Your task to perform on an android device: Open notification settings Image 0: 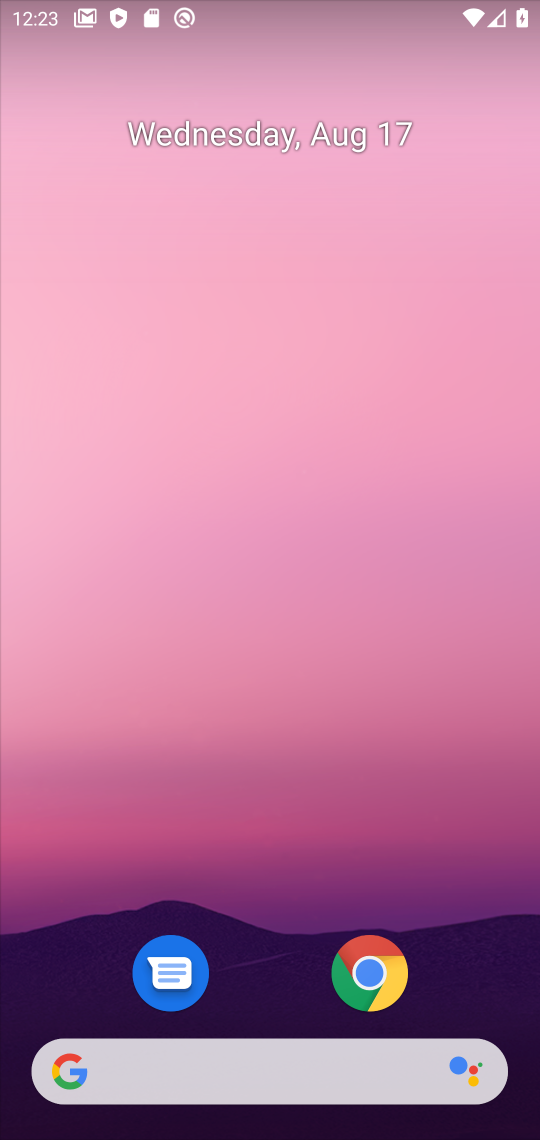
Step 0: drag from (262, 1058) to (212, 190)
Your task to perform on an android device: Open notification settings Image 1: 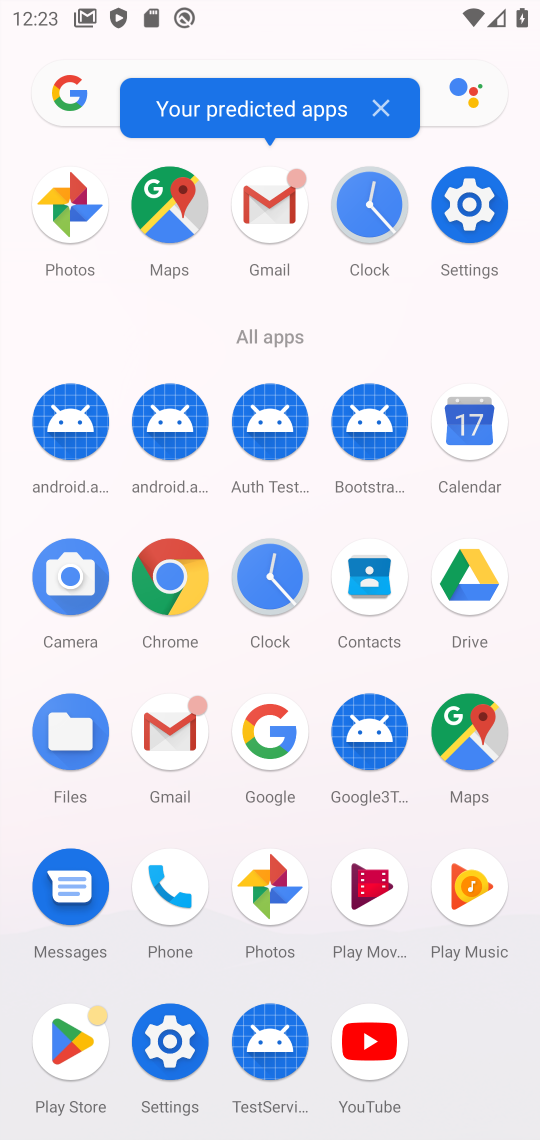
Step 1: click (471, 207)
Your task to perform on an android device: Open notification settings Image 2: 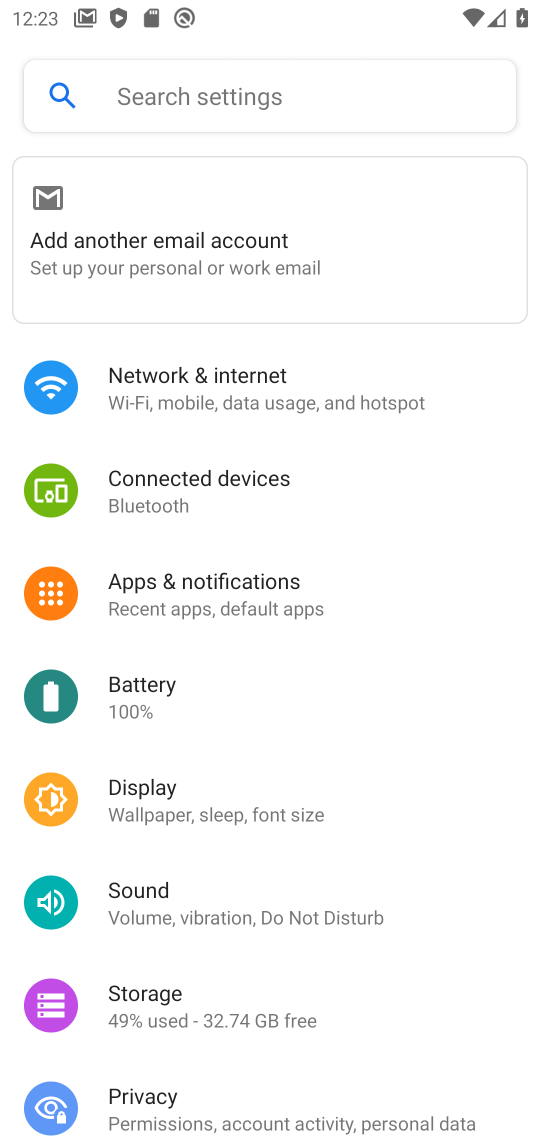
Step 2: click (204, 593)
Your task to perform on an android device: Open notification settings Image 3: 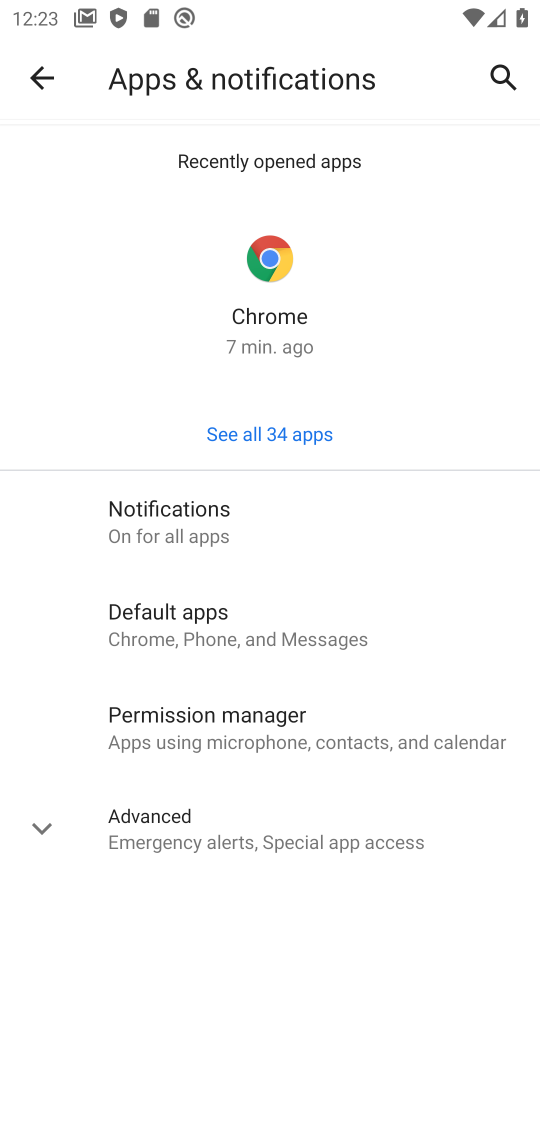
Step 3: click (137, 525)
Your task to perform on an android device: Open notification settings Image 4: 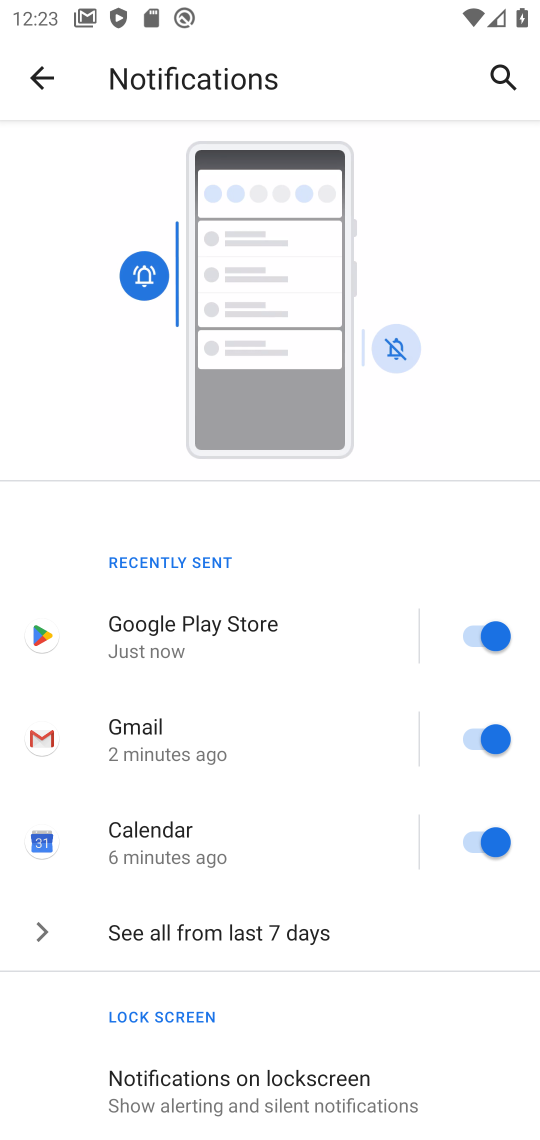
Step 4: task complete